Your task to perform on an android device: remove spam from my inbox in the gmail app Image 0: 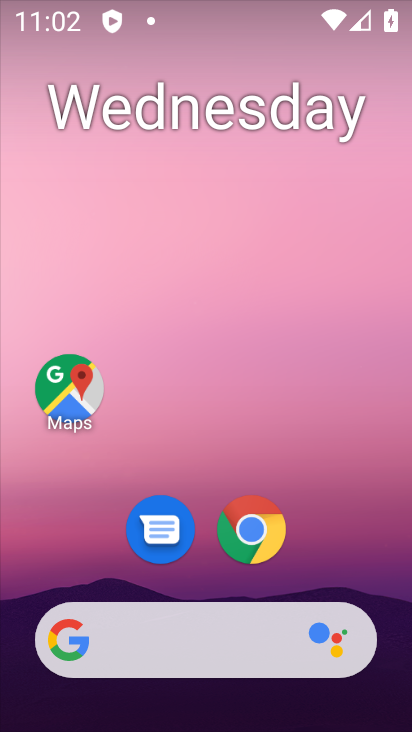
Step 0: drag from (386, 590) to (380, 168)
Your task to perform on an android device: remove spam from my inbox in the gmail app Image 1: 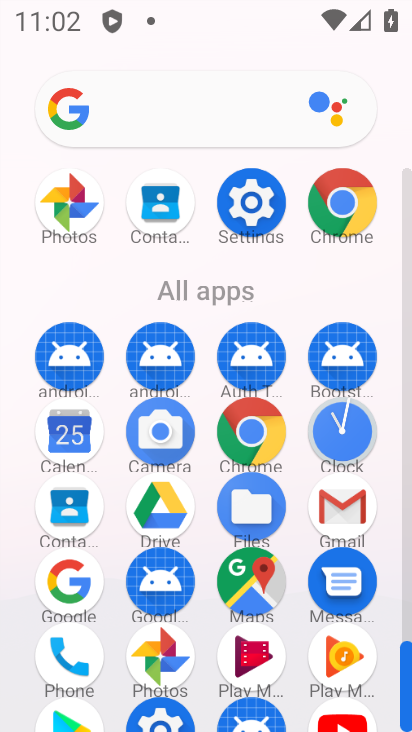
Step 1: click (347, 519)
Your task to perform on an android device: remove spam from my inbox in the gmail app Image 2: 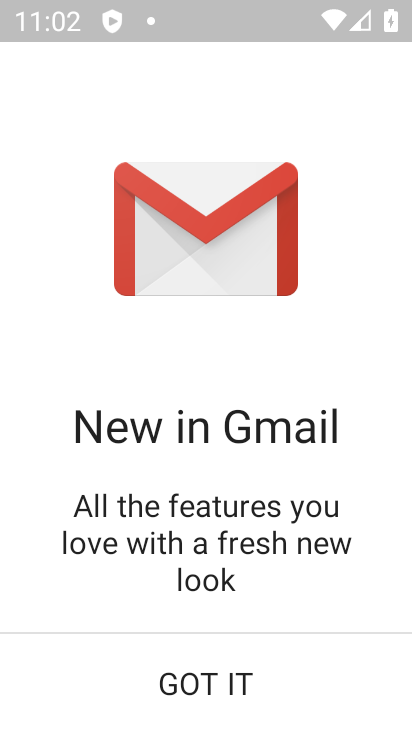
Step 2: click (338, 676)
Your task to perform on an android device: remove spam from my inbox in the gmail app Image 3: 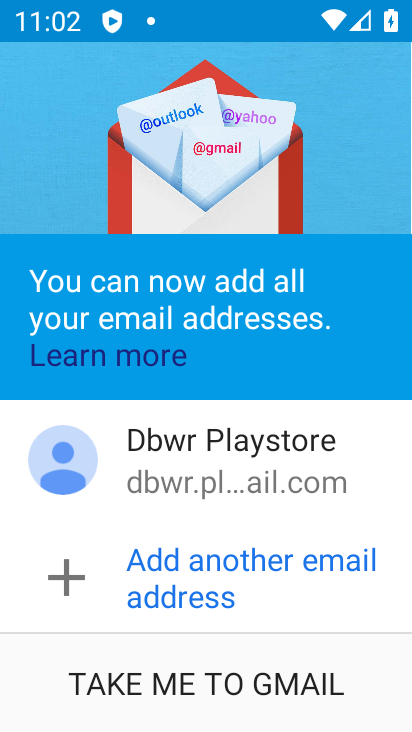
Step 3: click (333, 681)
Your task to perform on an android device: remove spam from my inbox in the gmail app Image 4: 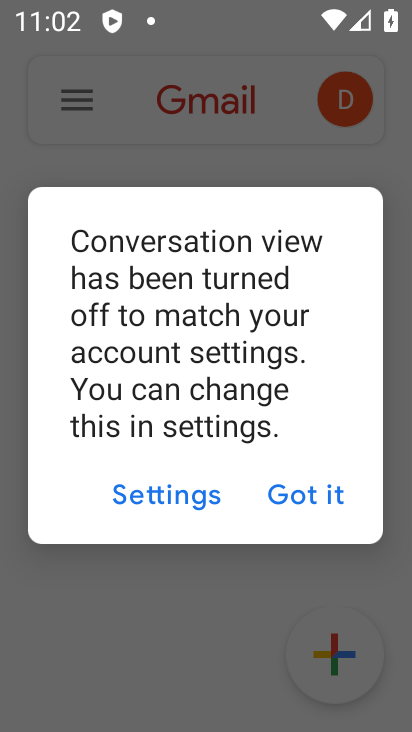
Step 4: click (337, 519)
Your task to perform on an android device: remove spam from my inbox in the gmail app Image 5: 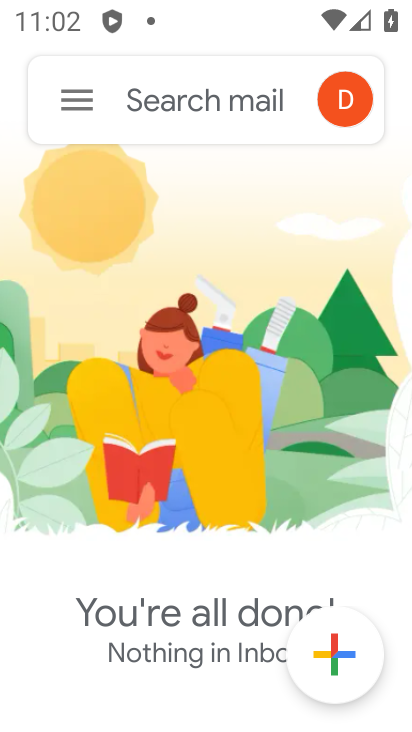
Step 5: click (85, 102)
Your task to perform on an android device: remove spam from my inbox in the gmail app Image 6: 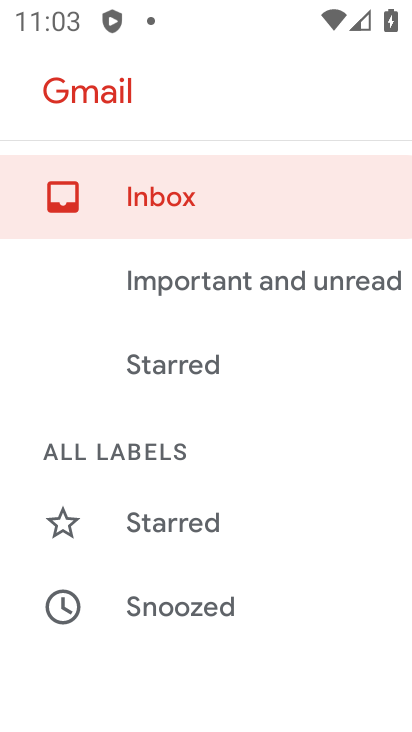
Step 6: drag from (305, 493) to (317, 418)
Your task to perform on an android device: remove spam from my inbox in the gmail app Image 7: 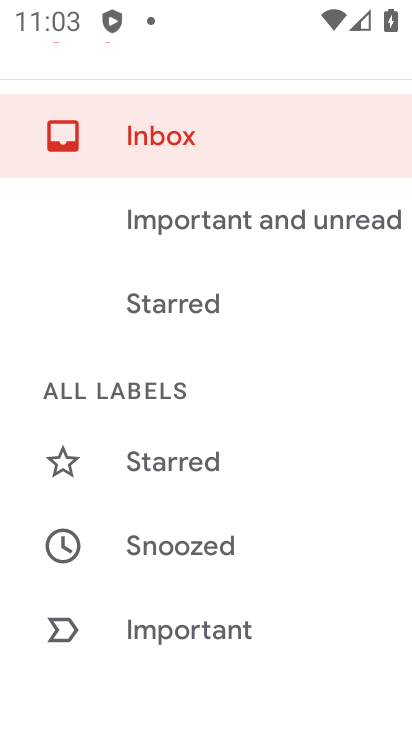
Step 7: drag from (334, 540) to (348, 449)
Your task to perform on an android device: remove spam from my inbox in the gmail app Image 8: 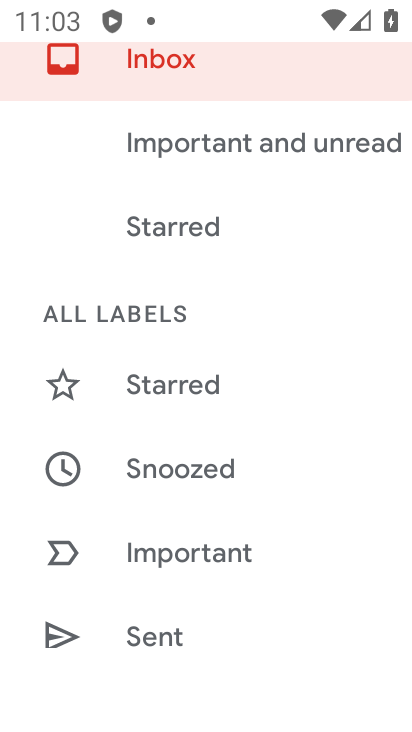
Step 8: drag from (333, 555) to (347, 443)
Your task to perform on an android device: remove spam from my inbox in the gmail app Image 9: 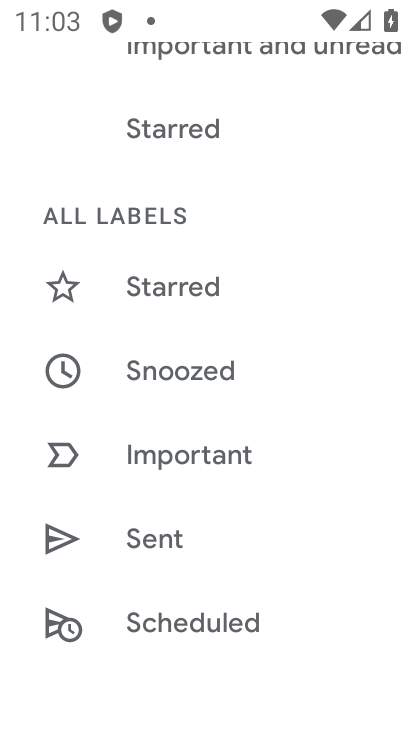
Step 9: drag from (340, 544) to (358, 434)
Your task to perform on an android device: remove spam from my inbox in the gmail app Image 10: 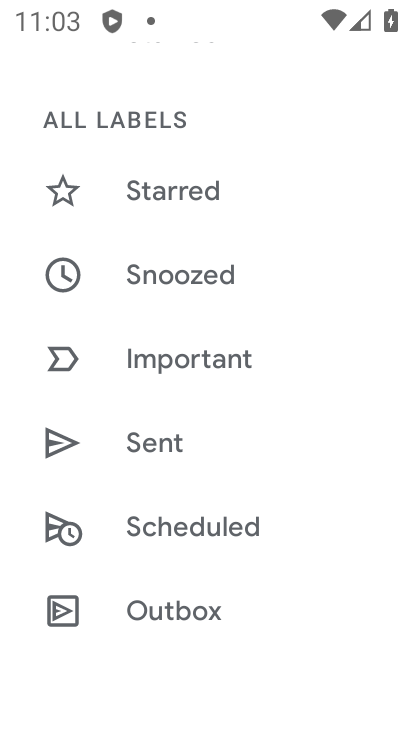
Step 10: drag from (329, 539) to (329, 434)
Your task to perform on an android device: remove spam from my inbox in the gmail app Image 11: 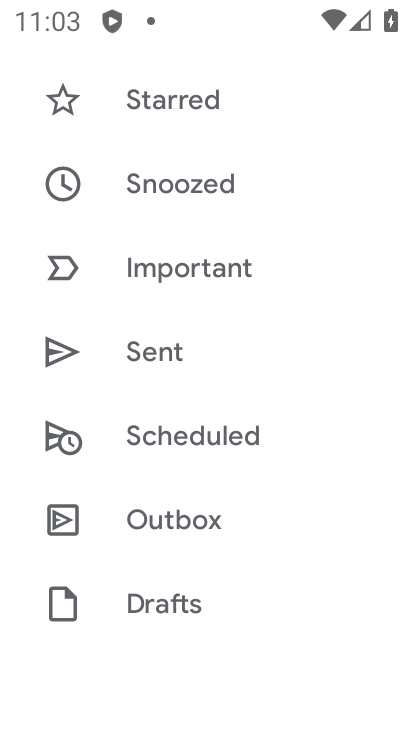
Step 11: drag from (342, 536) to (354, 440)
Your task to perform on an android device: remove spam from my inbox in the gmail app Image 12: 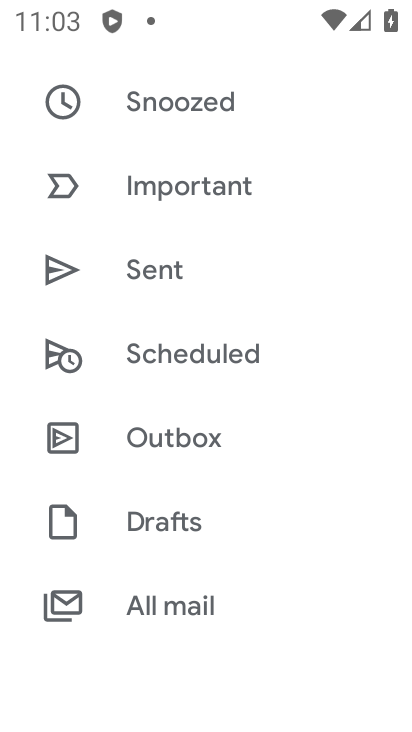
Step 12: drag from (365, 470) to (377, 386)
Your task to perform on an android device: remove spam from my inbox in the gmail app Image 13: 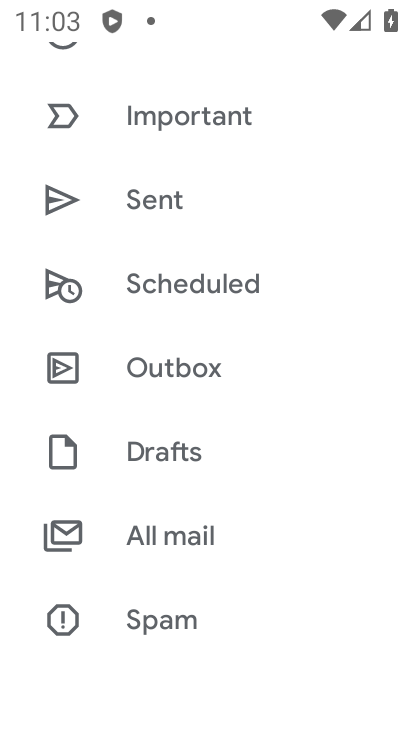
Step 13: drag from (352, 513) to (349, 389)
Your task to perform on an android device: remove spam from my inbox in the gmail app Image 14: 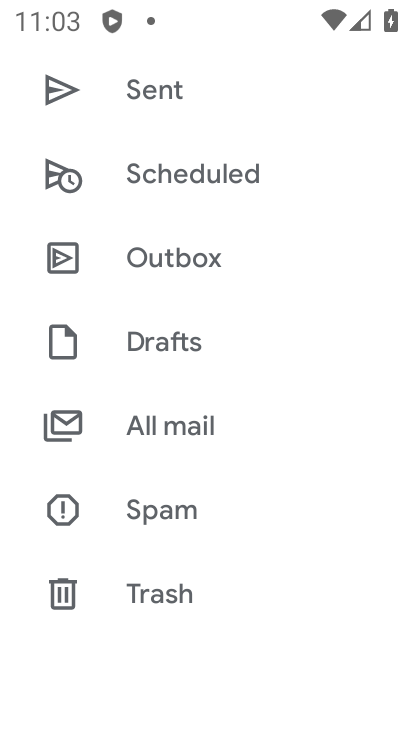
Step 14: drag from (318, 538) to (318, 405)
Your task to perform on an android device: remove spam from my inbox in the gmail app Image 15: 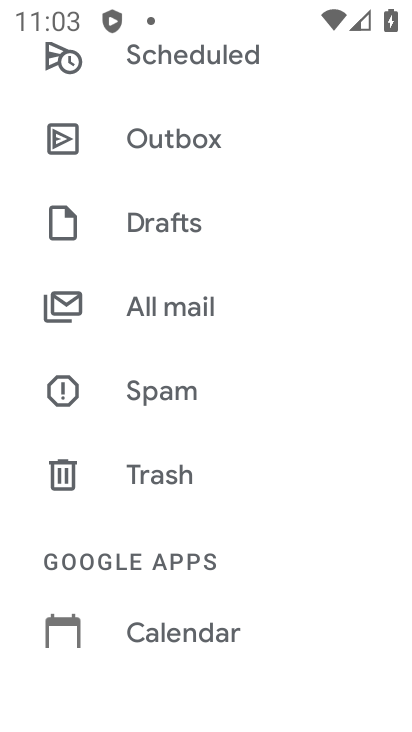
Step 15: click (183, 401)
Your task to perform on an android device: remove spam from my inbox in the gmail app Image 16: 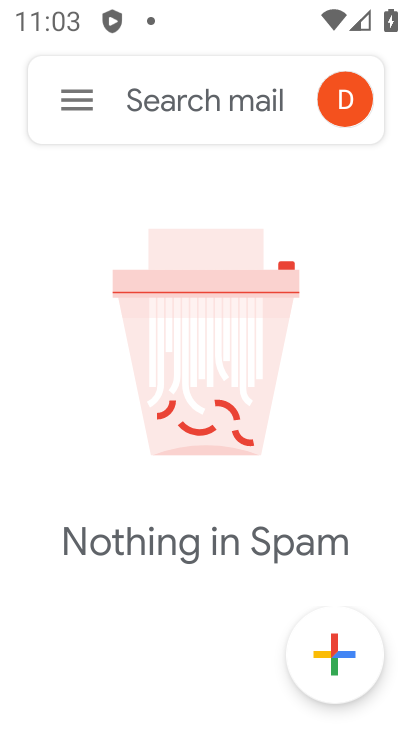
Step 16: task complete